Your task to perform on an android device: When is my next appointment? Image 0: 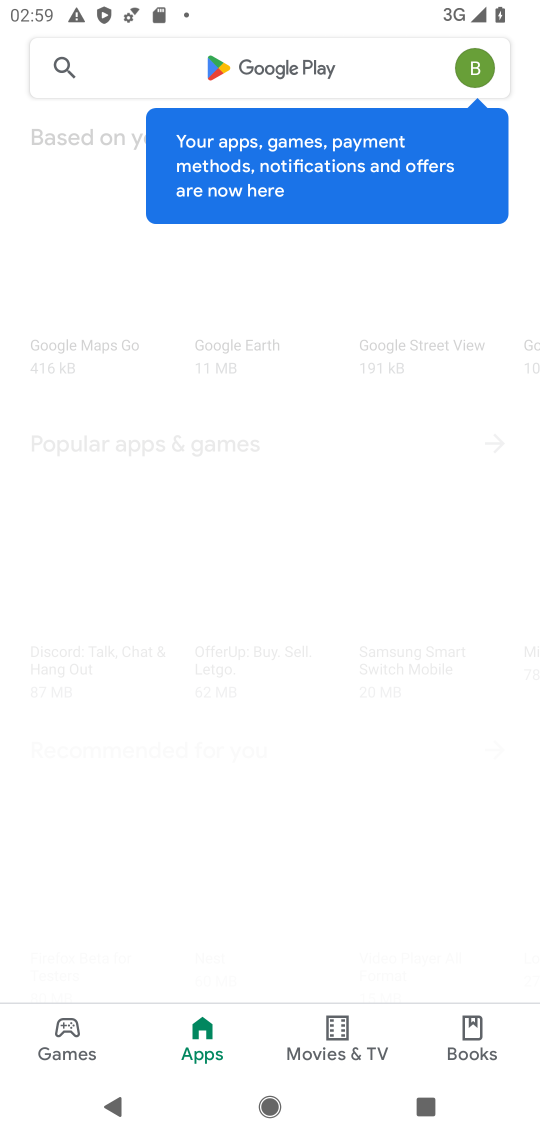
Step 0: press home button
Your task to perform on an android device: When is my next appointment? Image 1: 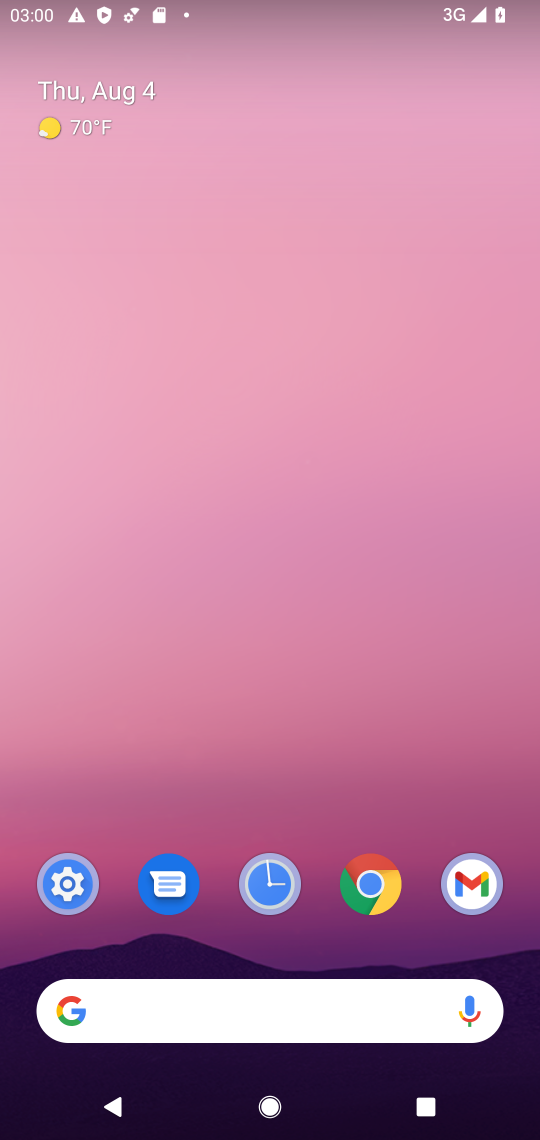
Step 1: drag from (310, 793) to (351, 354)
Your task to perform on an android device: When is my next appointment? Image 2: 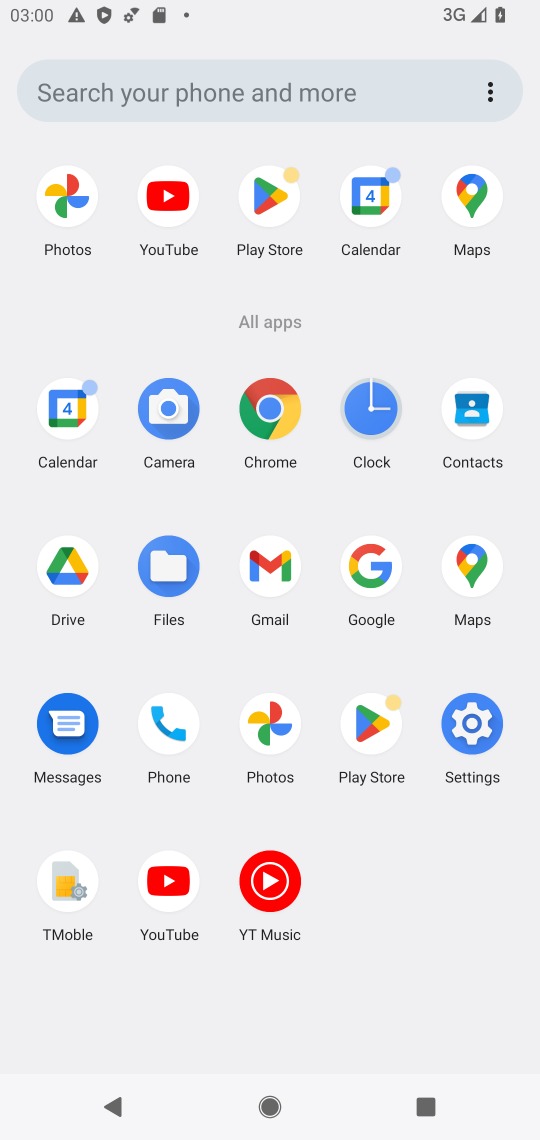
Step 2: click (67, 412)
Your task to perform on an android device: When is my next appointment? Image 3: 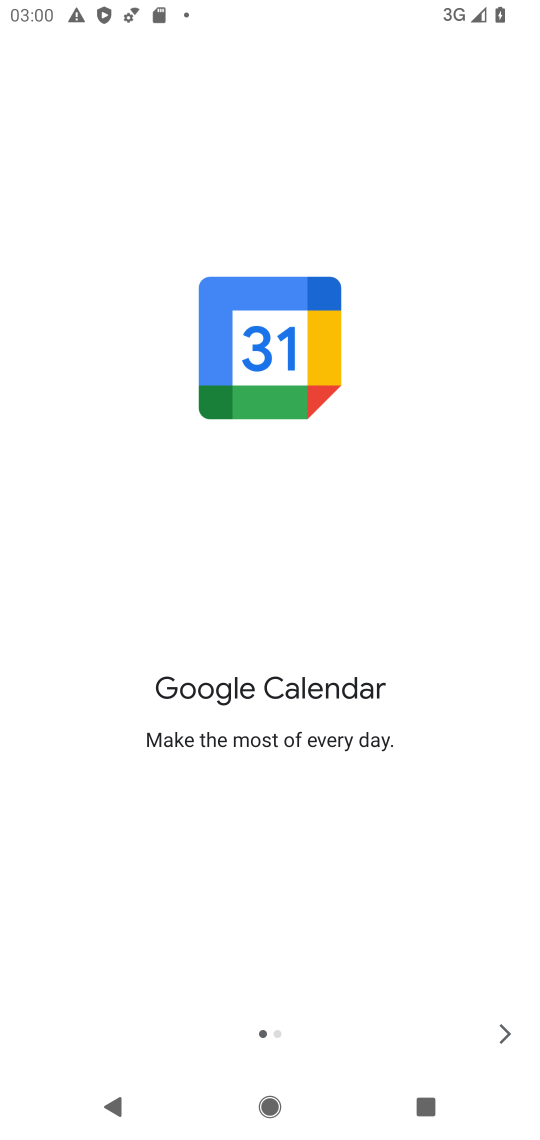
Step 3: click (500, 1030)
Your task to perform on an android device: When is my next appointment? Image 4: 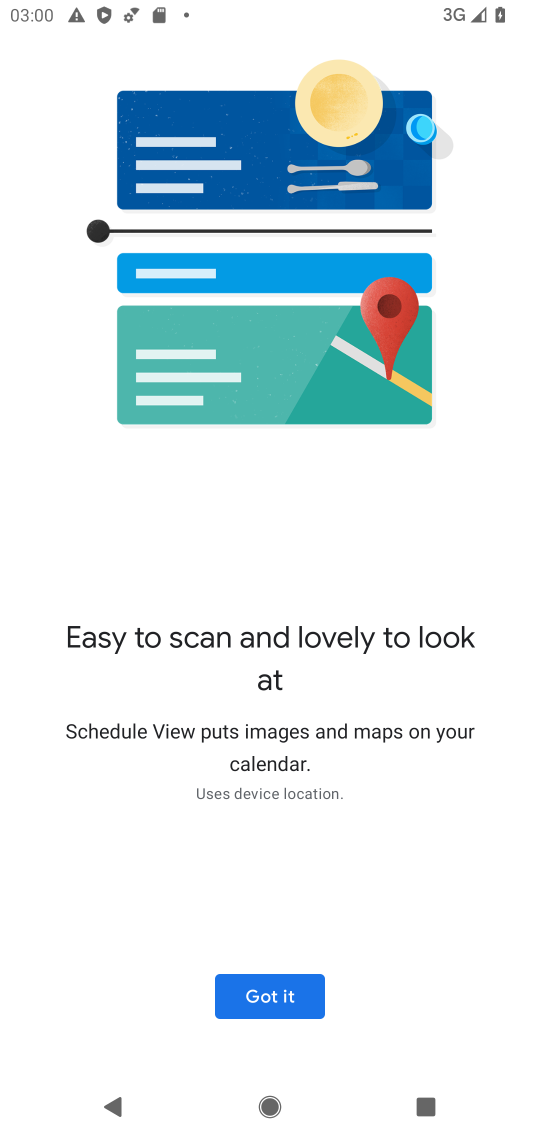
Step 4: click (266, 999)
Your task to perform on an android device: When is my next appointment? Image 5: 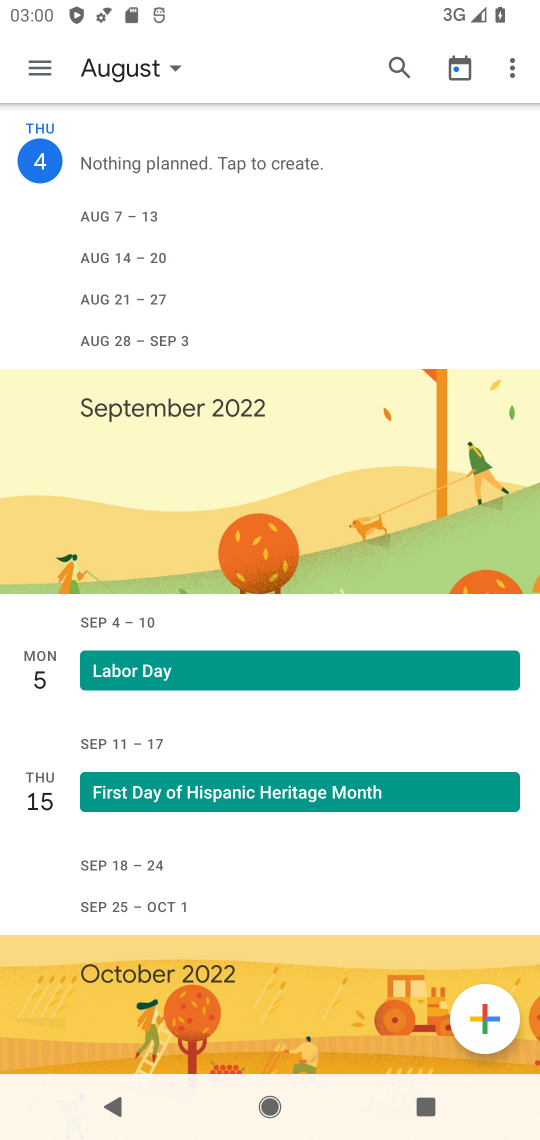
Step 5: task complete